Your task to perform on an android device: Go to settings Image 0: 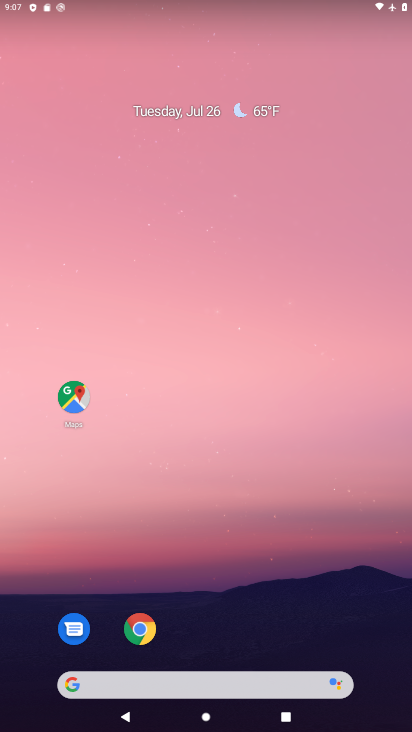
Step 0: drag from (338, 547) to (234, 2)
Your task to perform on an android device: Go to settings Image 1: 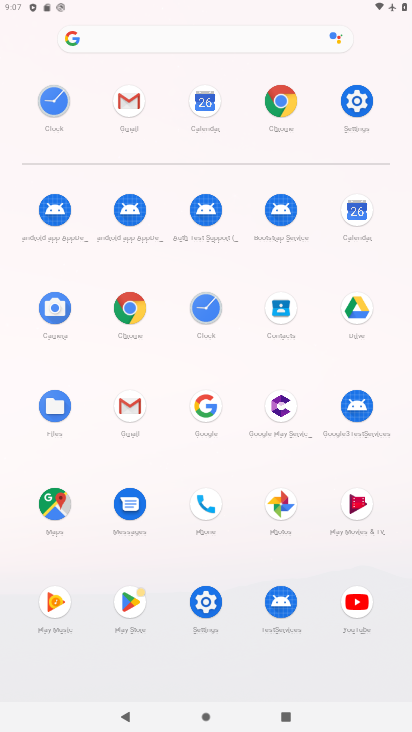
Step 1: click (200, 598)
Your task to perform on an android device: Go to settings Image 2: 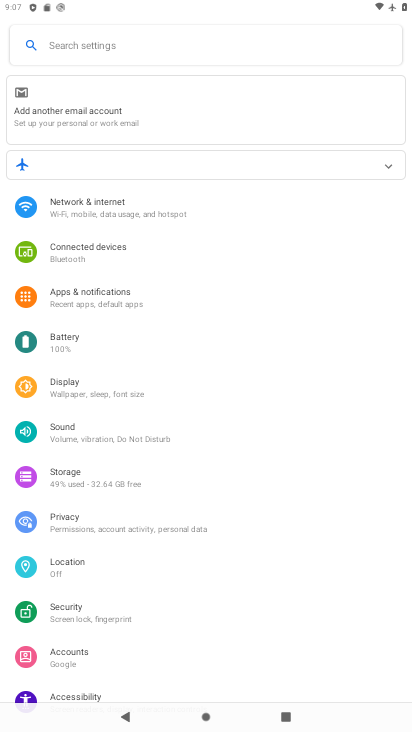
Step 2: task complete